Your task to perform on an android device: toggle airplane mode Image 0: 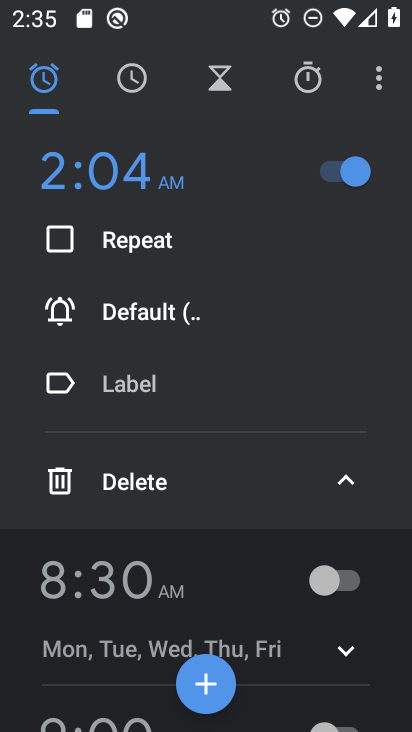
Step 0: press home button
Your task to perform on an android device: toggle airplane mode Image 1: 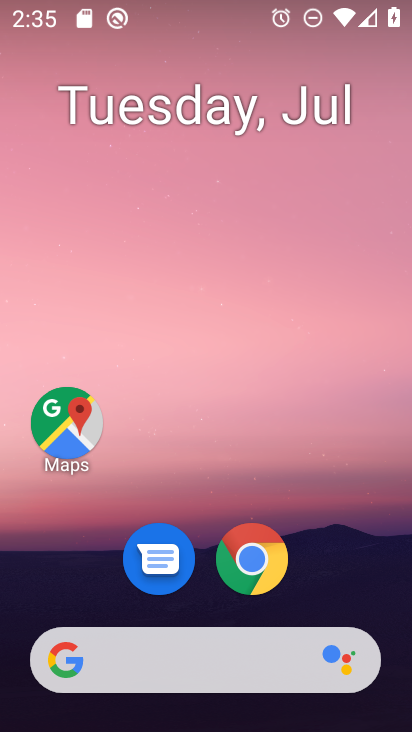
Step 1: drag from (348, 568) to (352, 105)
Your task to perform on an android device: toggle airplane mode Image 2: 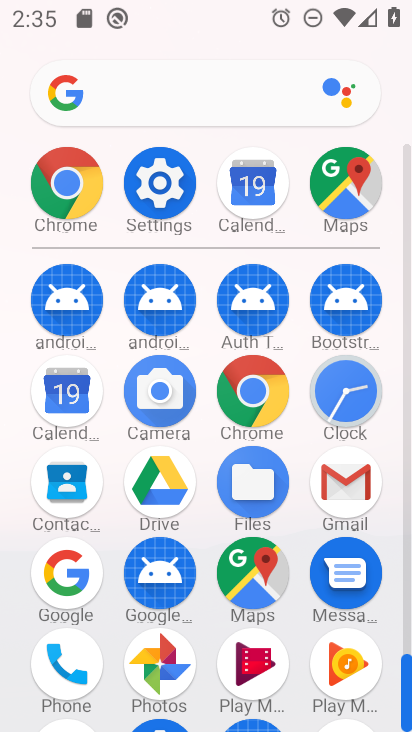
Step 2: click (165, 185)
Your task to perform on an android device: toggle airplane mode Image 3: 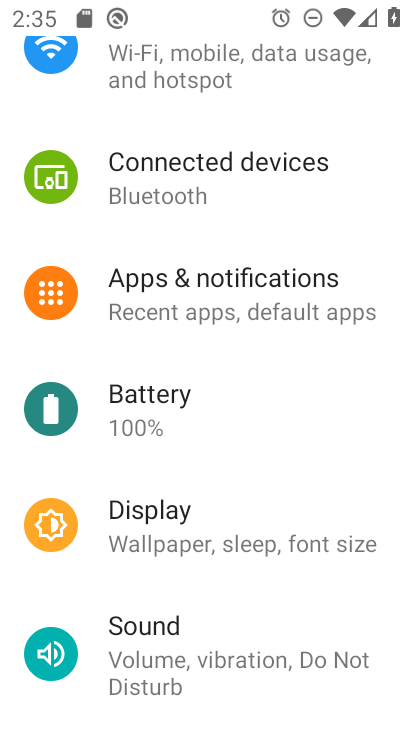
Step 3: drag from (343, 210) to (348, 310)
Your task to perform on an android device: toggle airplane mode Image 4: 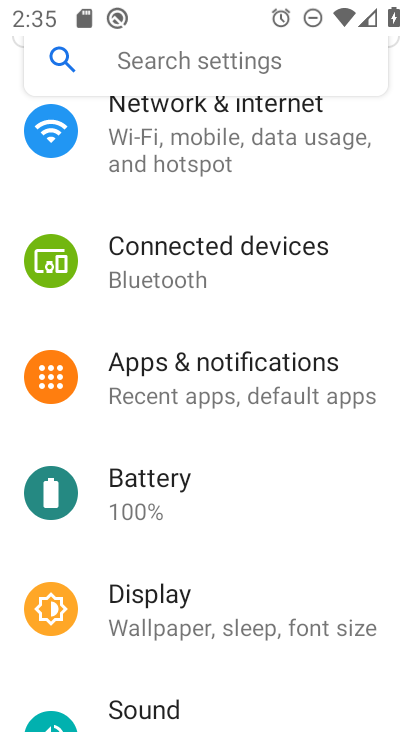
Step 4: drag from (367, 194) to (375, 304)
Your task to perform on an android device: toggle airplane mode Image 5: 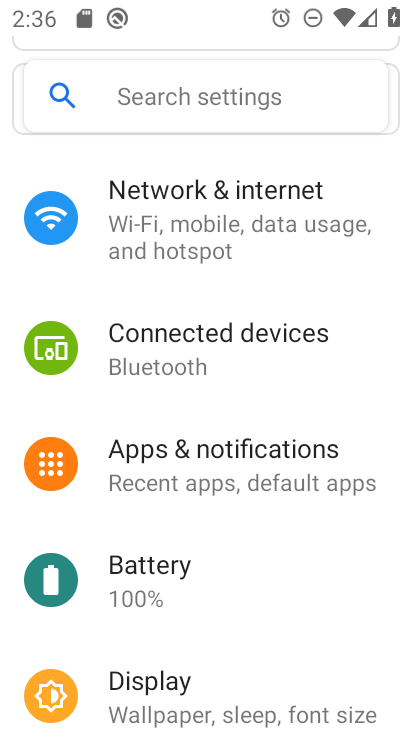
Step 5: drag from (369, 172) to (371, 312)
Your task to perform on an android device: toggle airplane mode Image 6: 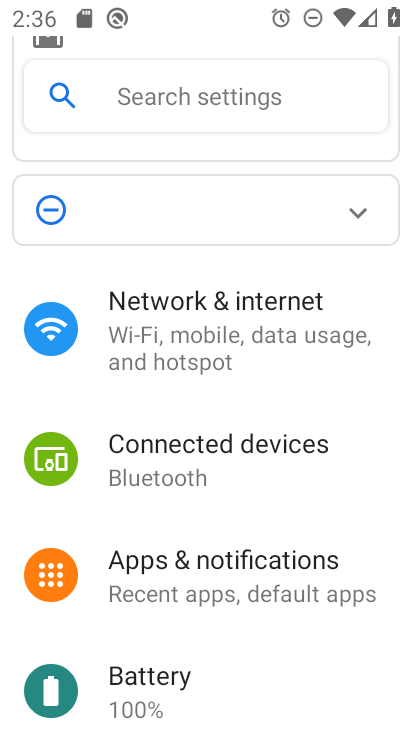
Step 6: click (337, 346)
Your task to perform on an android device: toggle airplane mode Image 7: 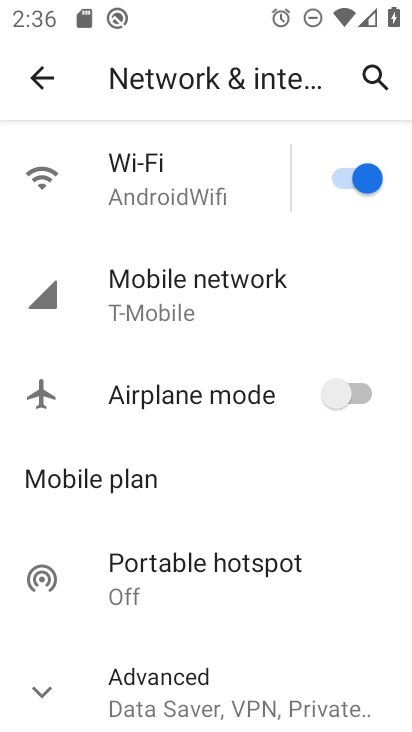
Step 7: drag from (345, 491) to (361, 386)
Your task to perform on an android device: toggle airplane mode Image 8: 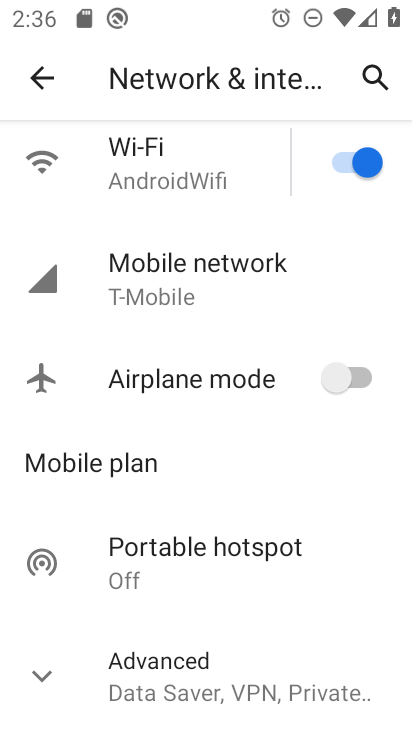
Step 8: click (339, 389)
Your task to perform on an android device: toggle airplane mode Image 9: 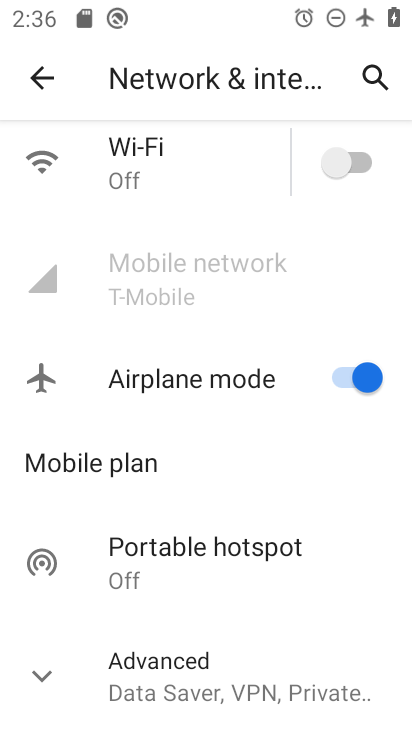
Step 9: task complete